Your task to perform on an android device: turn vacation reply on in the gmail app Image 0: 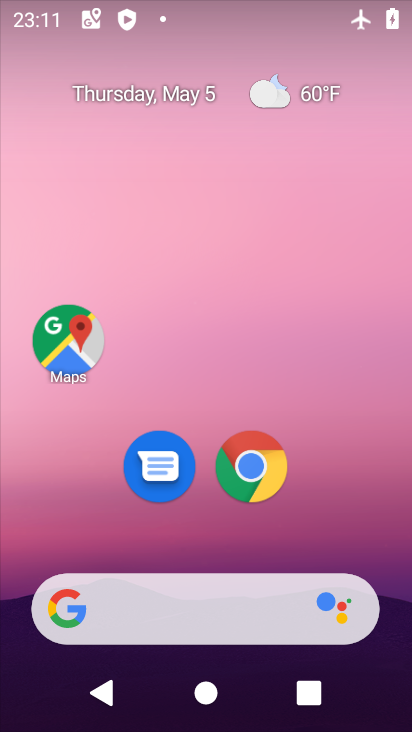
Step 0: drag from (219, 552) to (301, 296)
Your task to perform on an android device: turn vacation reply on in the gmail app Image 1: 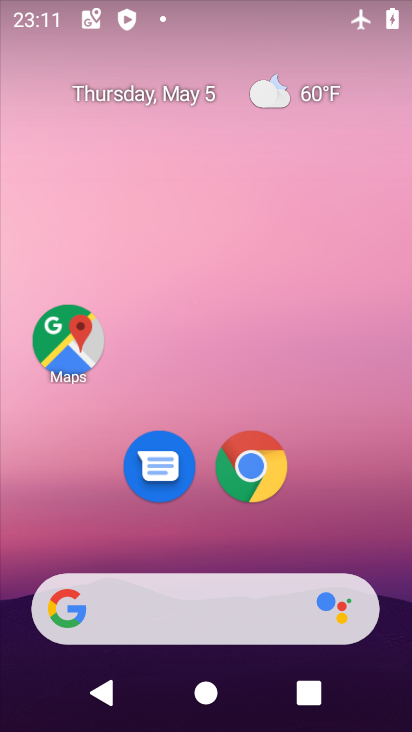
Step 1: drag from (227, 543) to (227, 219)
Your task to perform on an android device: turn vacation reply on in the gmail app Image 2: 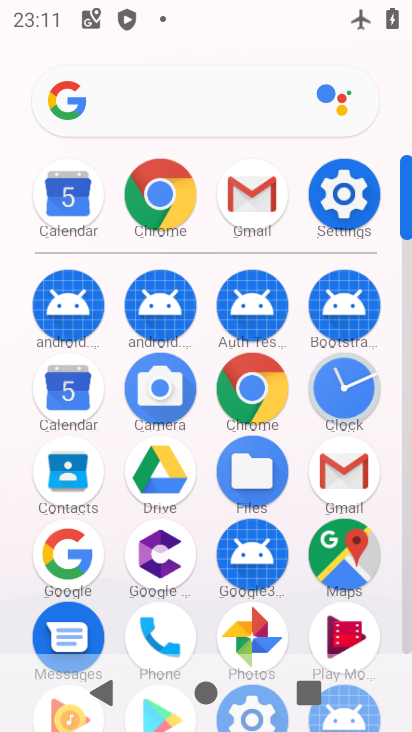
Step 2: click (328, 202)
Your task to perform on an android device: turn vacation reply on in the gmail app Image 3: 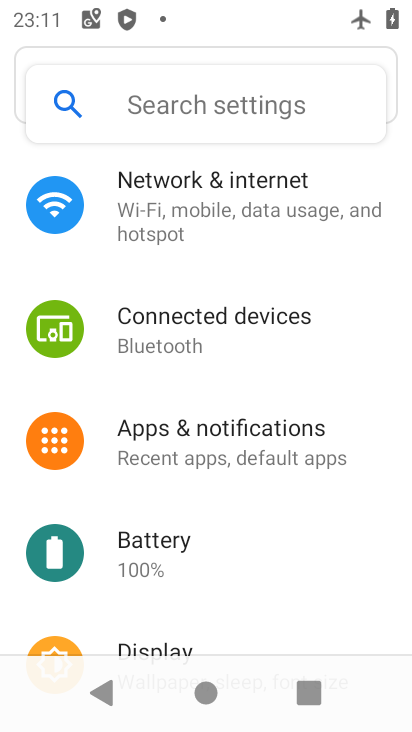
Step 3: press home button
Your task to perform on an android device: turn vacation reply on in the gmail app Image 4: 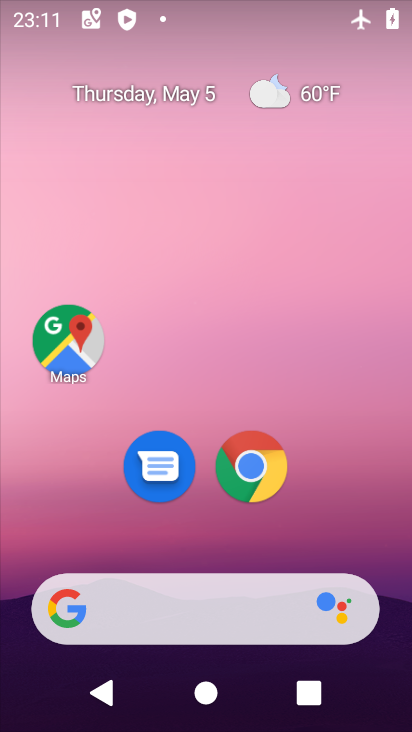
Step 4: drag from (222, 569) to (285, 210)
Your task to perform on an android device: turn vacation reply on in the gmail app Image 5: 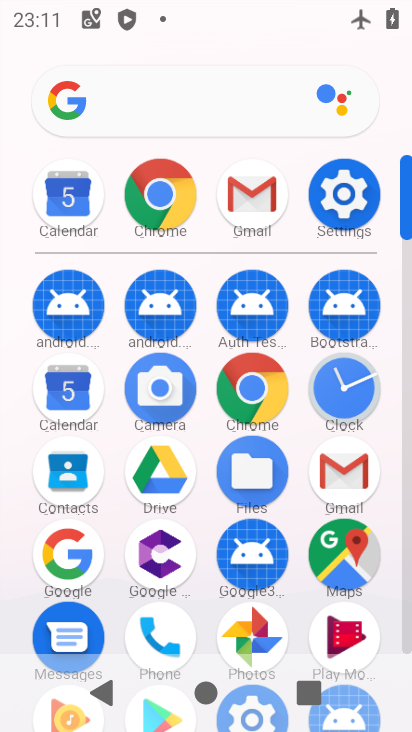
Step 5: click (340, 486)
Your task to perform on an android device: turn vacation reply on in the gmail app Image 6: 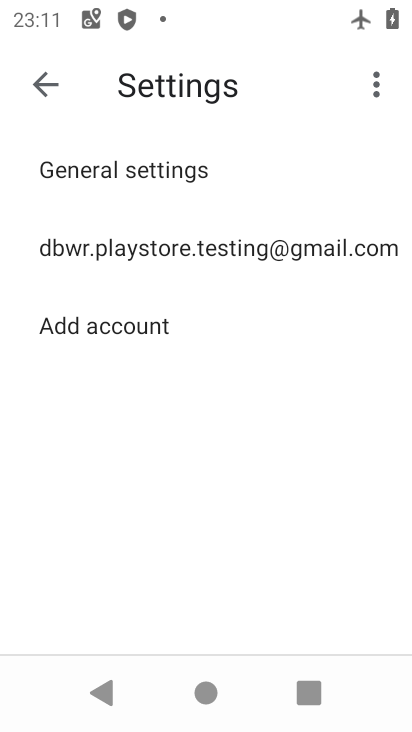
Step 6: click (77, 246)
Your task to perform on an android device: turn vacation reply on in the gmail app Image 7: 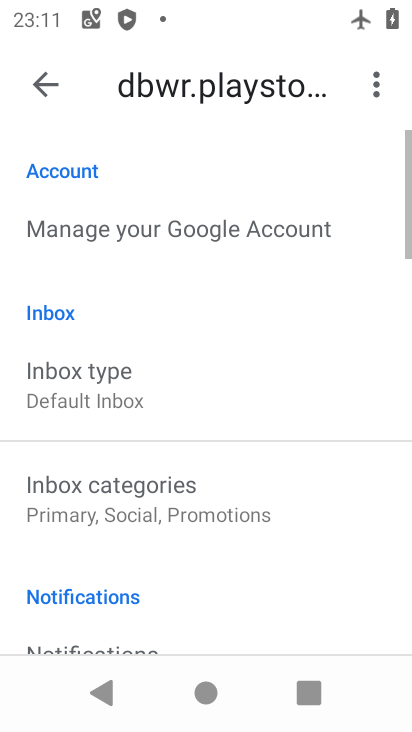
Step 7: drag from (136, 588) to (176, 222)
Your task to perform on an android device: turn vacation reply on in the gmail app Image 8: 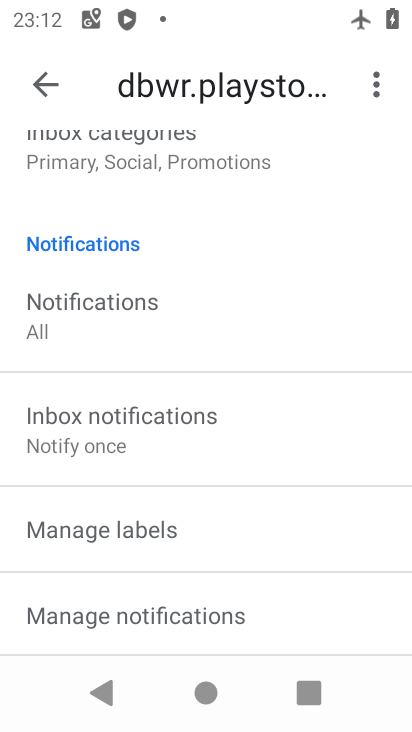
Step 8: drag from (169, 589) to (209, 310)
Your task to perform on an android device: turn vacation reply on in the gmail app Image 9: 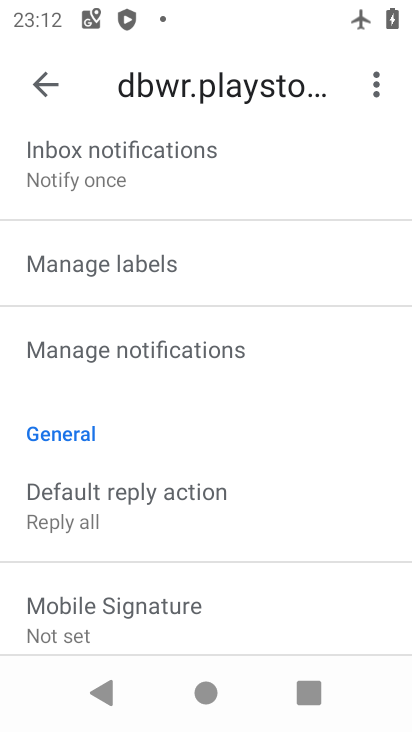
Step 9: drag from (126, 628) to (163, 333)
Your task to perform on an android device: turn vacation reply on in the gmail app Image 10: 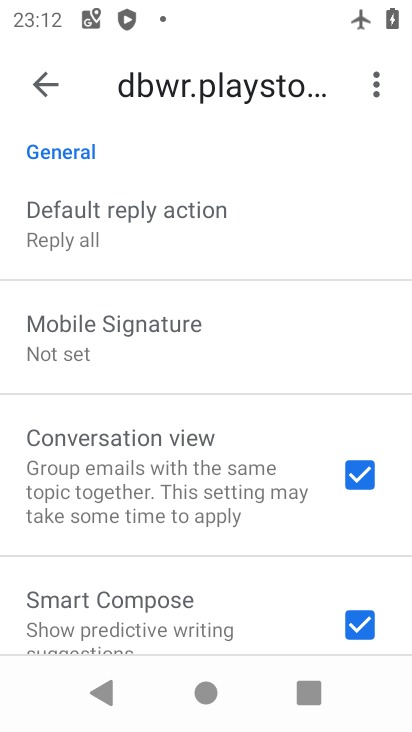
Step 10: drag from (171, 575) to (212, 383)
Your task to perform on an android device: turn vacation reply on in the gmail app Image 11: 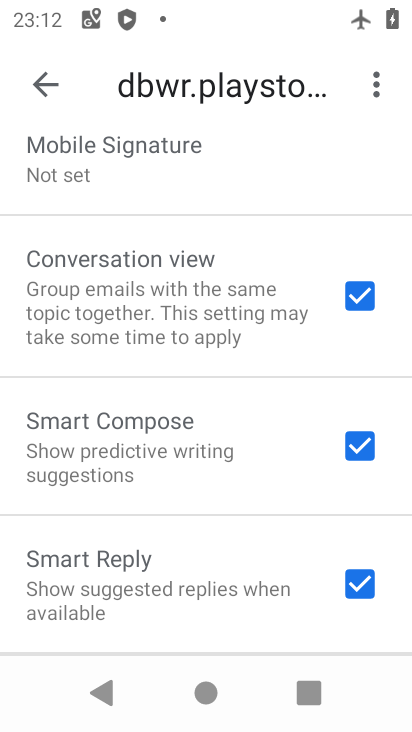
Step 11: drag from (168, 614) to (225, 264)
Your task to perform on an android device: turn vacation reply on in the gmail app Image 12: 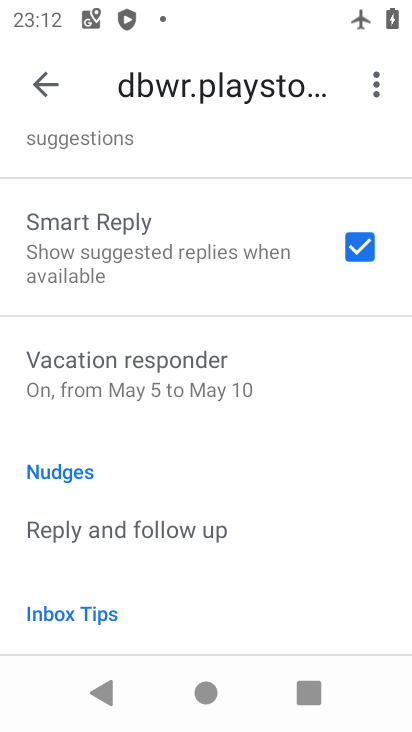
Step 12: click (129, 374)
Your task to perform on an android device: turn vacation reply on in the gmail app Image 13: 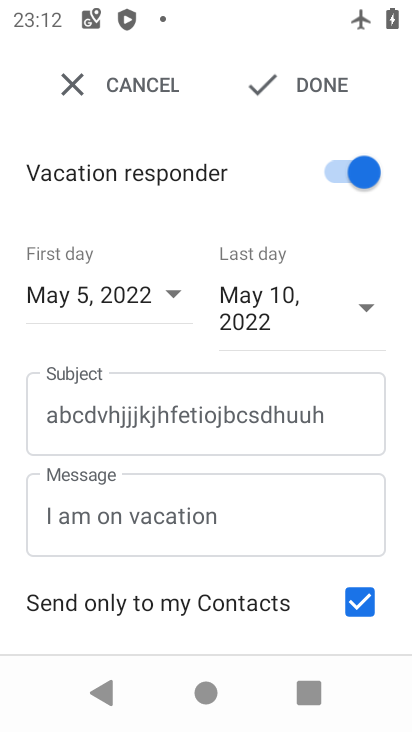
Step 13: click (326, 74)
Your task to perform on an android device: turn vacation reply on in the gmail app Image 14: 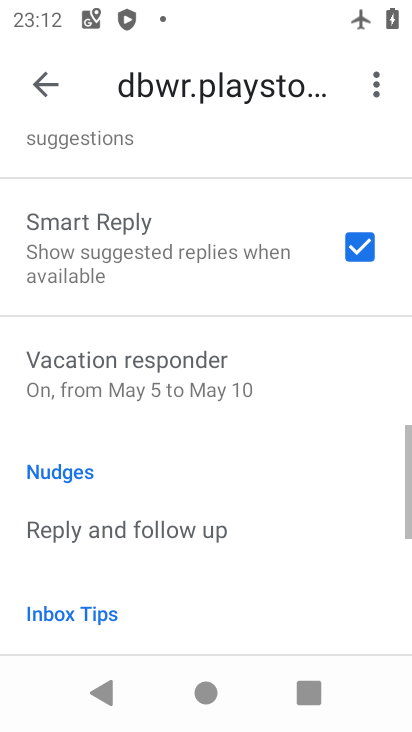
Step 14: task complete